Your task to perform on an android device: Open Maps and search for coffee Image 0: 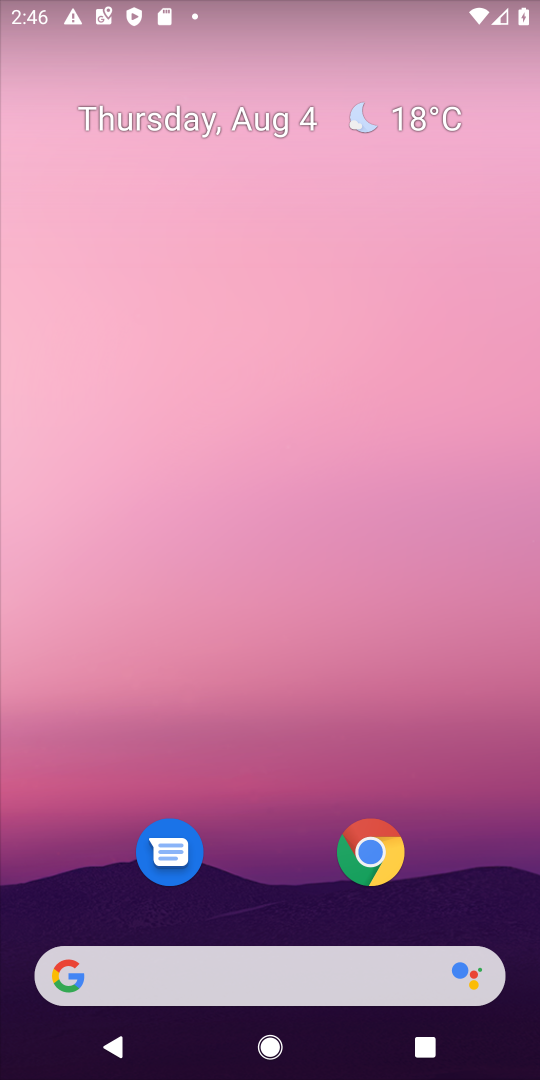
Step 0: drag from (305, 854) to (355, 0)
Your task to perform on an android device: Open Maps and search for coffee Image 1: 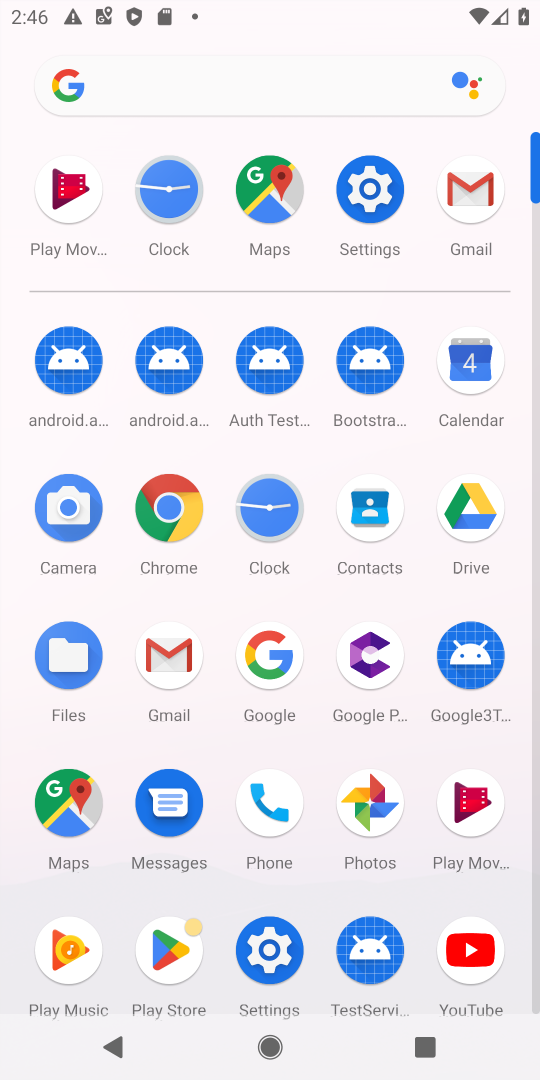
Step 1: click (279, 194)
Your task to perform on an android device: Open Maps and search for coffee Image 2: 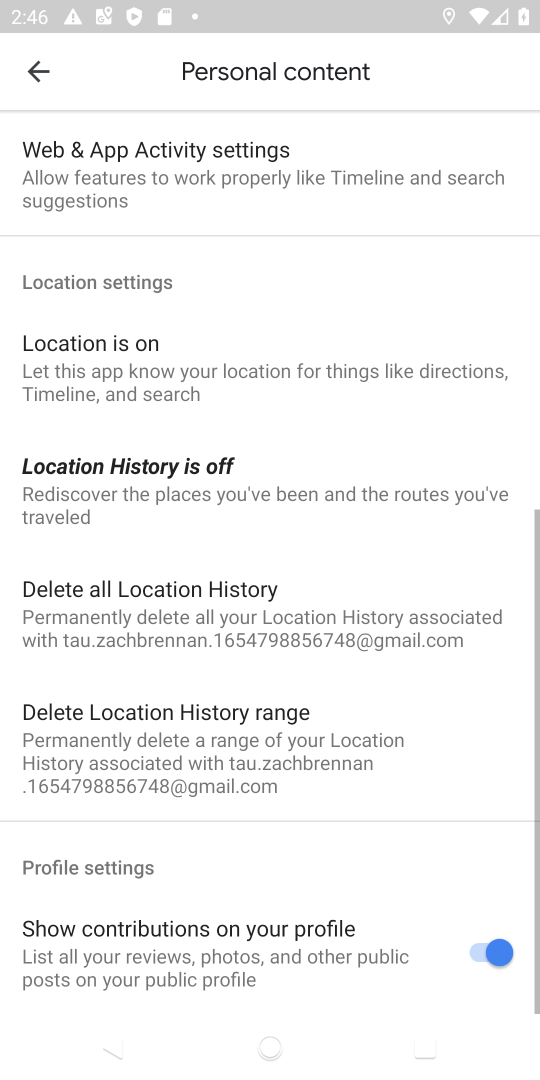
Step 2: click (40, 66)
Your task to perform on an android device: Open Maps and search for coffee Image 3: 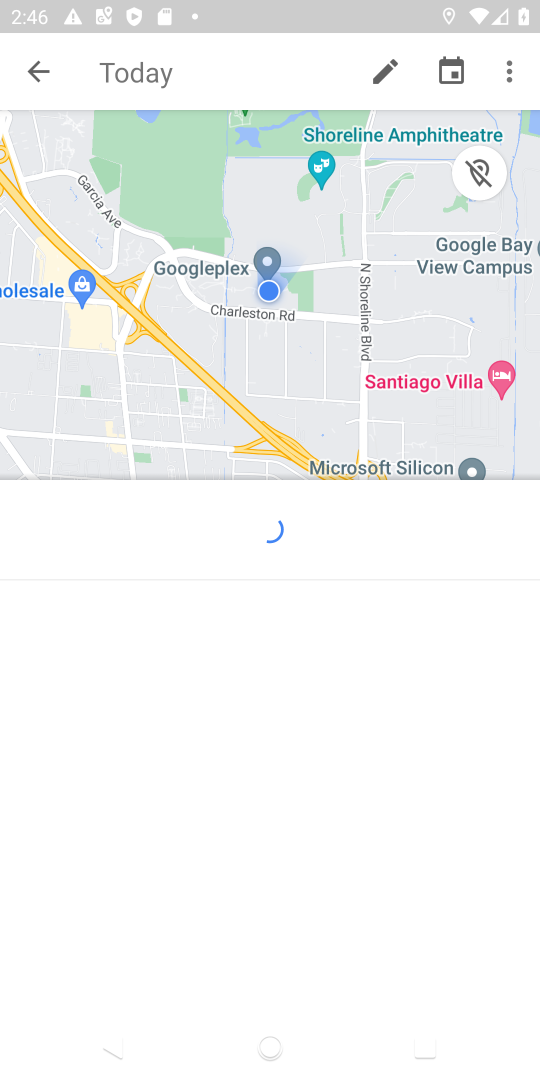
Step 3: click (51, 68)
Your task to perform on an android device: Open Maps and search for coffee Image 4: 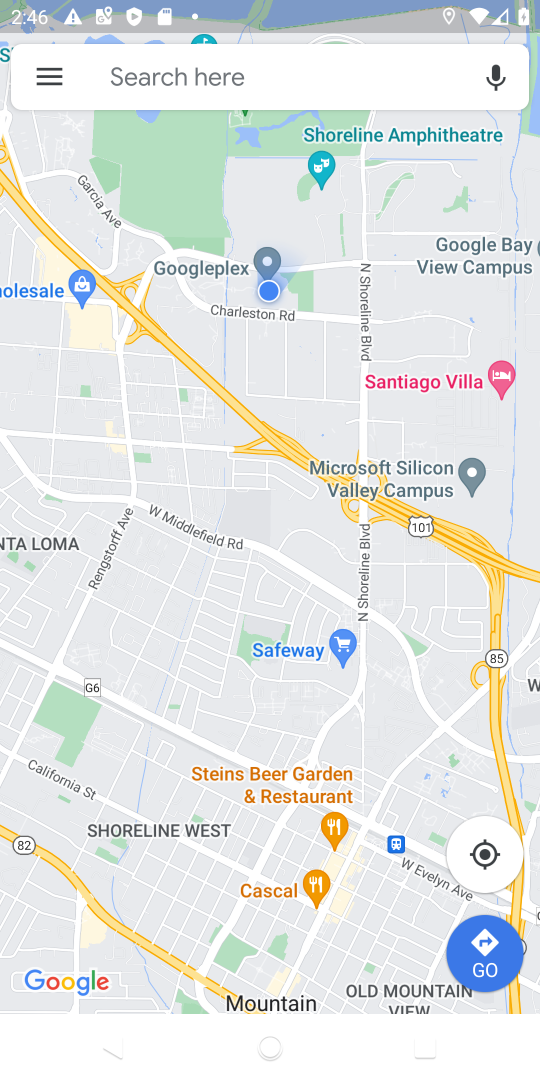
Step 4: click (254, 70)
Your task to perform on an android device: Open Maps and search for coffee Image 5: 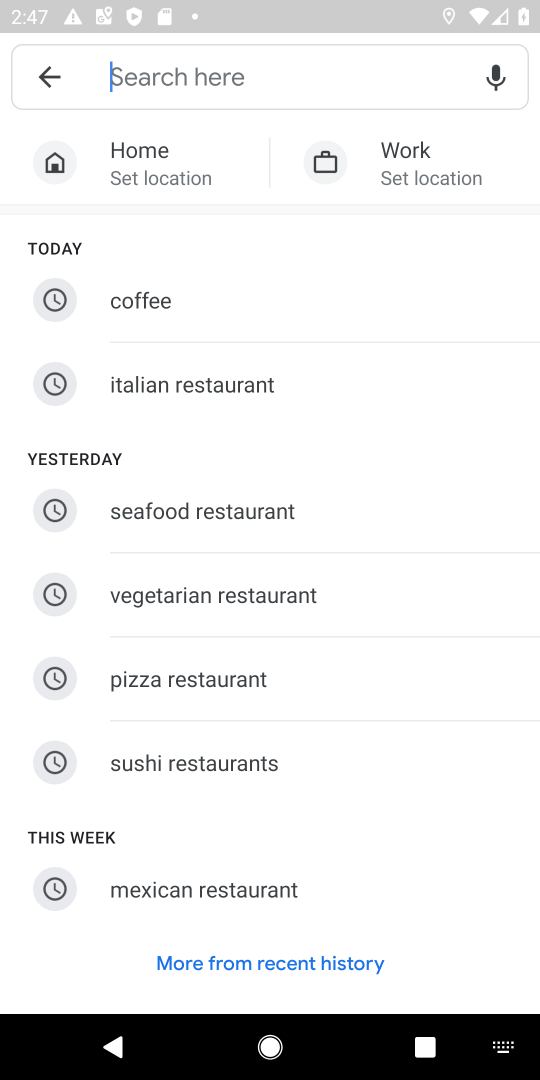
Step 5: type "coffee"
Your task to perform on an android device: Open Maps and search for coffee Image 6: 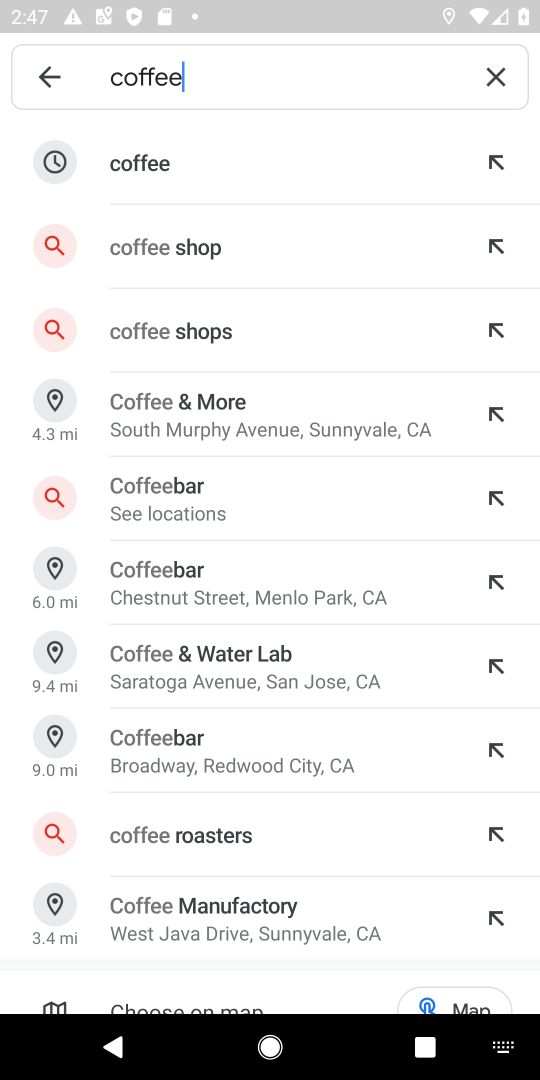
Step 6: click (178, 171)
Your task to perform on an android device: Open Maps and search for coffee Image 7: 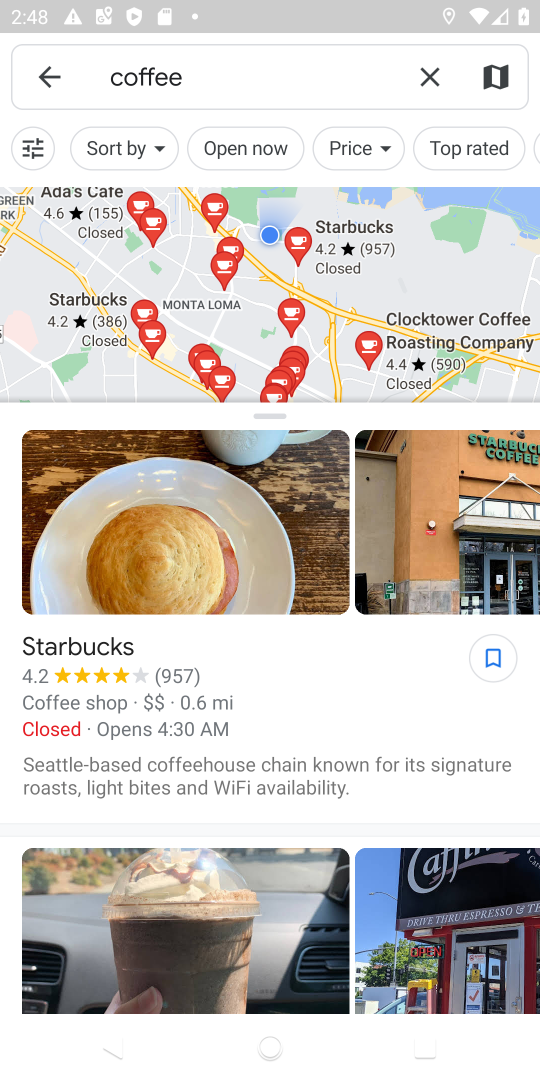
Step 7: task complete